Your task to perform on an android device: Open my contact list Image 0: 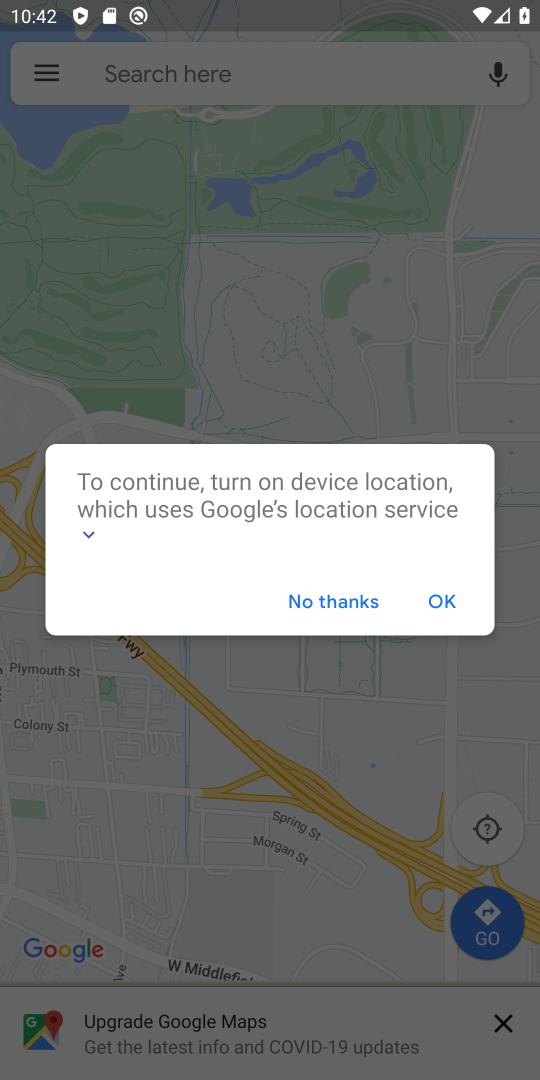
Step 0: press home button
Your task to perform on an android device: Open my contact list Image 1: 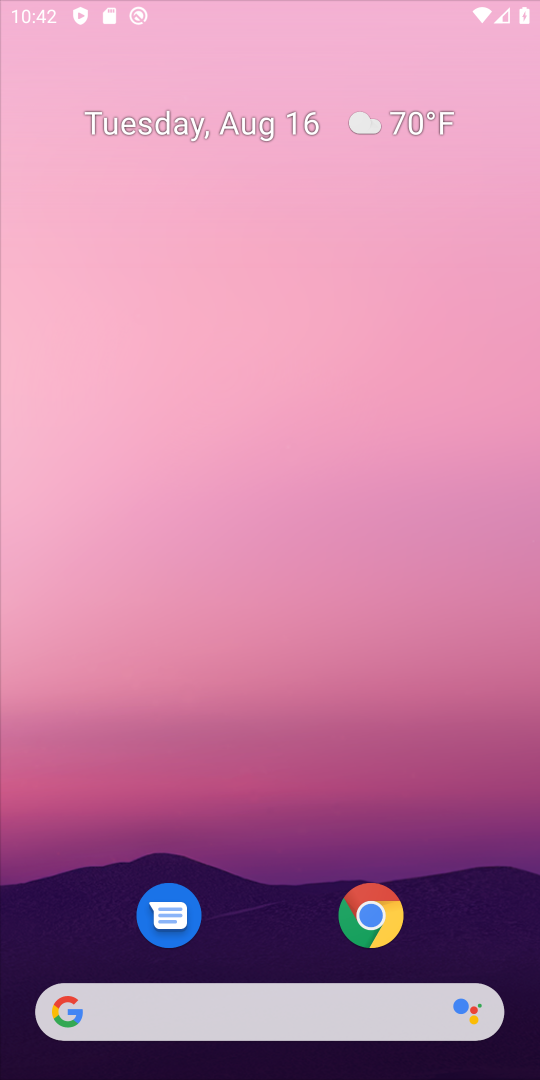
Step 1: press back button
Your task to perform on an android device: Open my contact list Image 2: 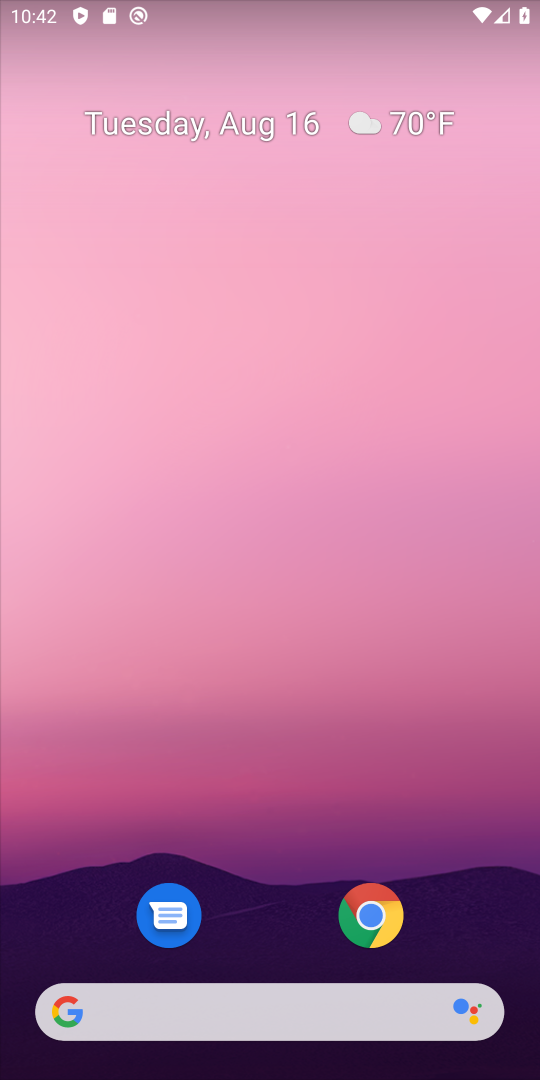
Step 2: drag from (275, 941) to (83, 258)
Your task to perform on an android device: Open my contact list Image 3: 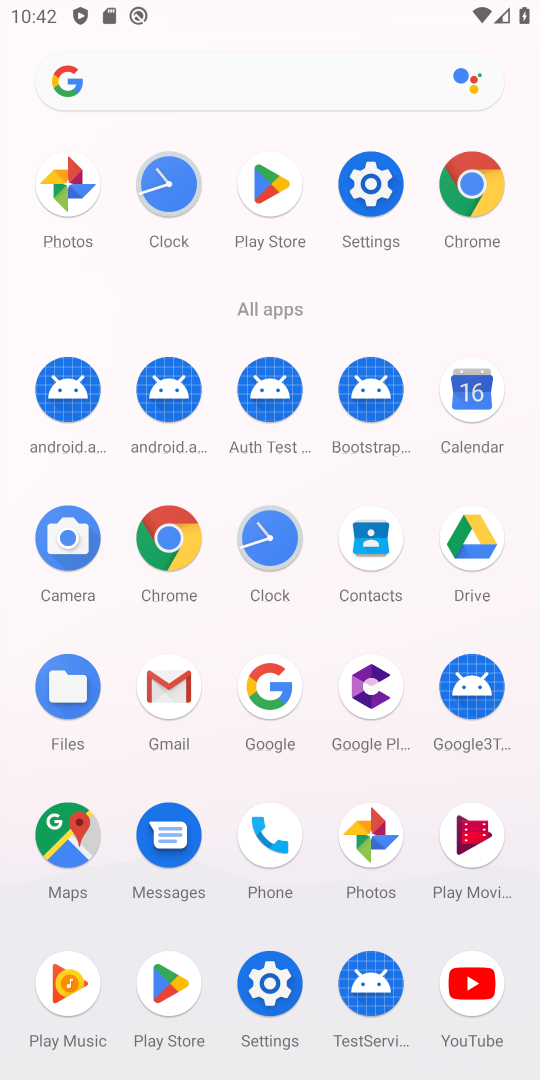
Step 3: click (260, 862)
Your task to perform on an android device: Open my contact list Image 4: 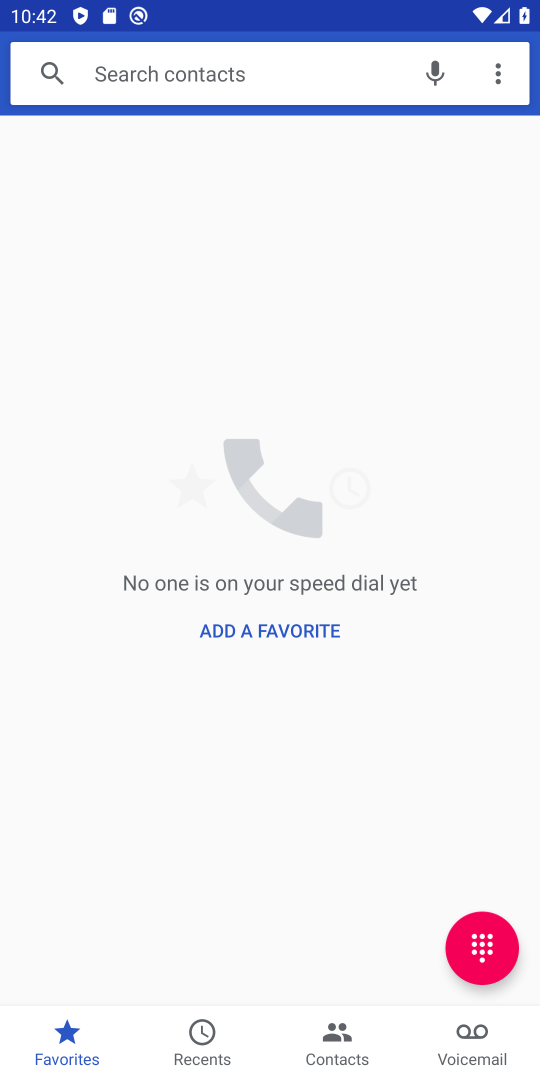
Step 4: click (329, 1032)
Your task to perform on an android device: Open my contact list Image 5: 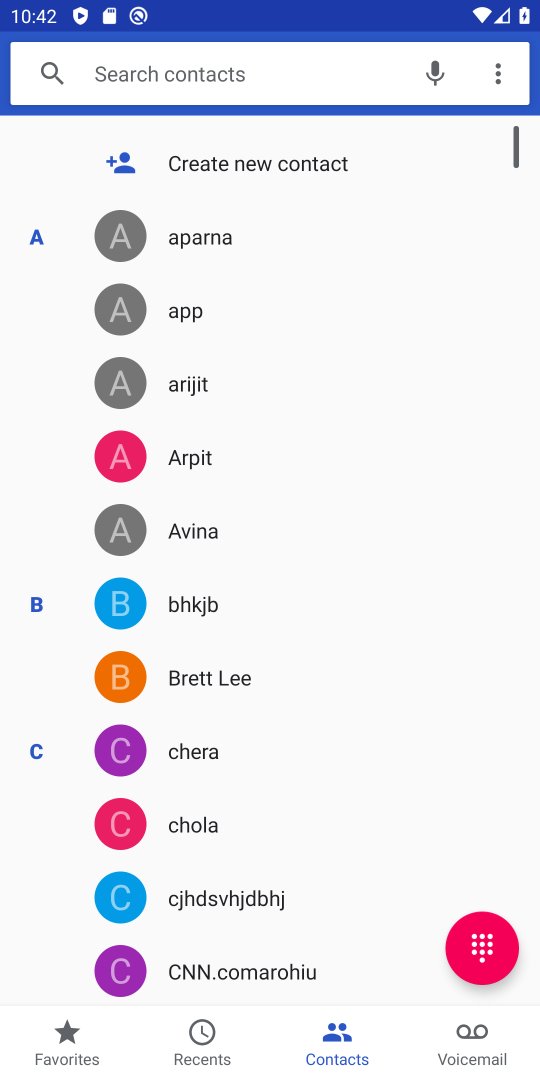
Step 5: task complete